Your task to perform on an android device: Go to Amazon Image 0: 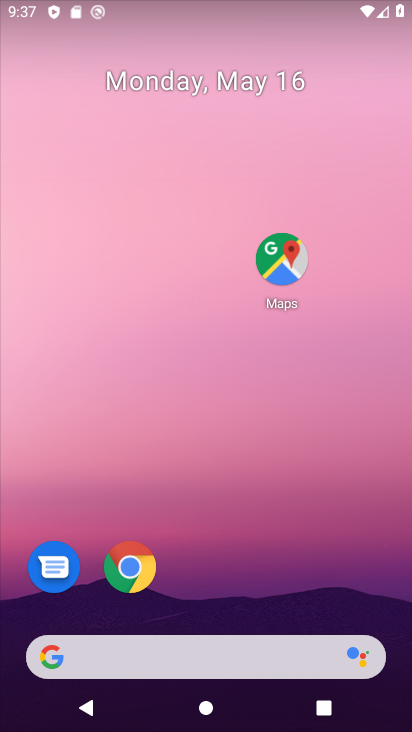
Step 0: click (128, 577)
Your task to perform on an android device: Go to Amazon Image 1: 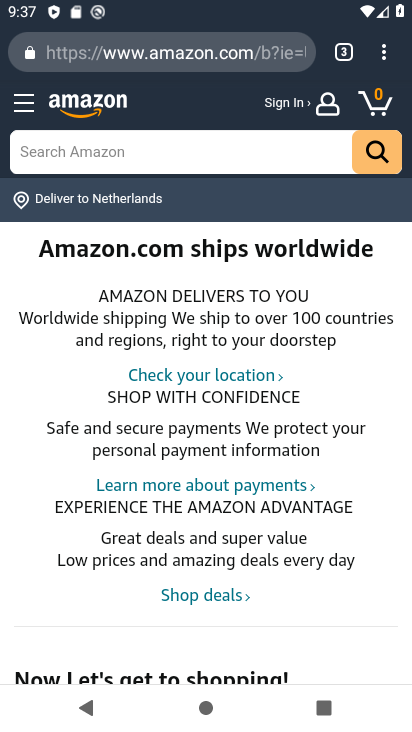
Step 1: task complete